Your task to perform on an android device: Open my contact list Image 0: 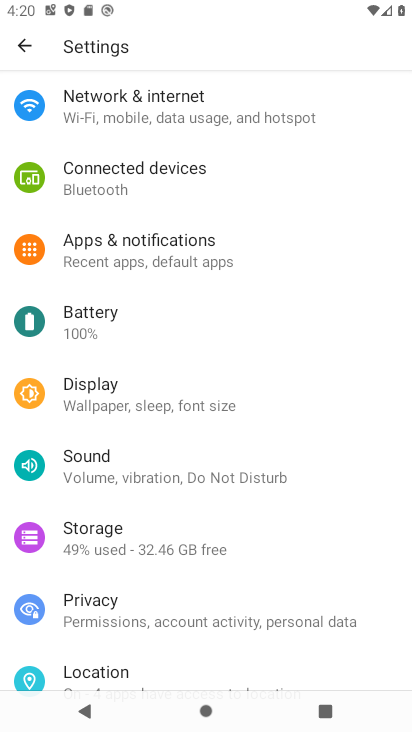
Step 0: press home button
Your task to perform on an android device: Open my contact list Image 1: 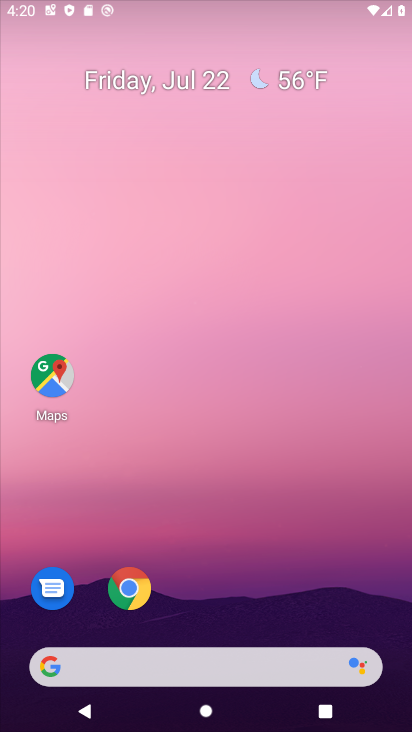
Step 1: drag from (233, 607) to (246, 237)
Your task to perform on an android device: Open my contact list Image 2: 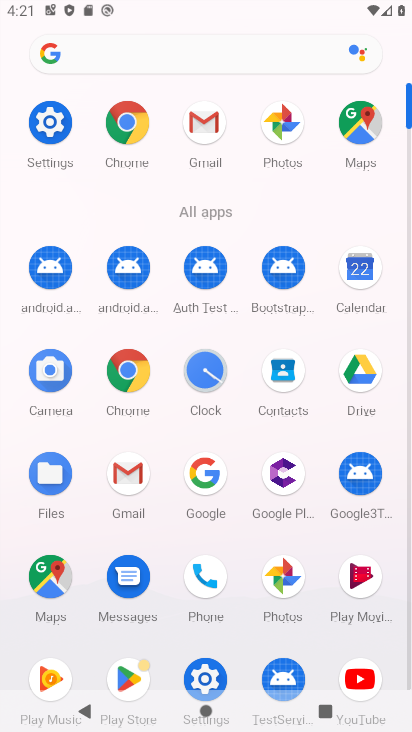
Step 2: click (287, 369)
Your task to perform on an android device: Open my contact list Image 3: 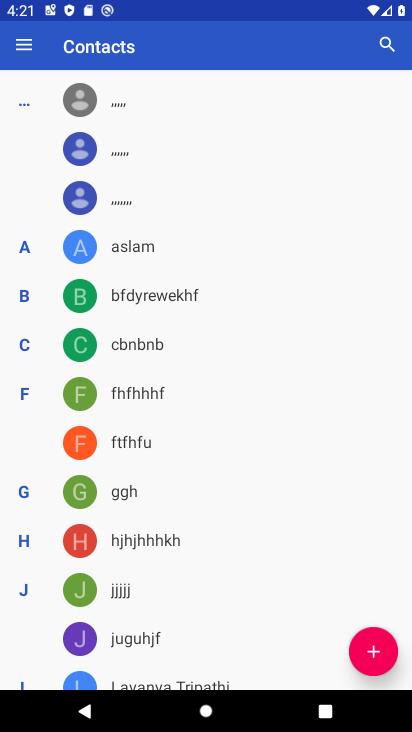
Step 3: task complete